Your task to perform on an android device: create a new album in the google photos Image 0: 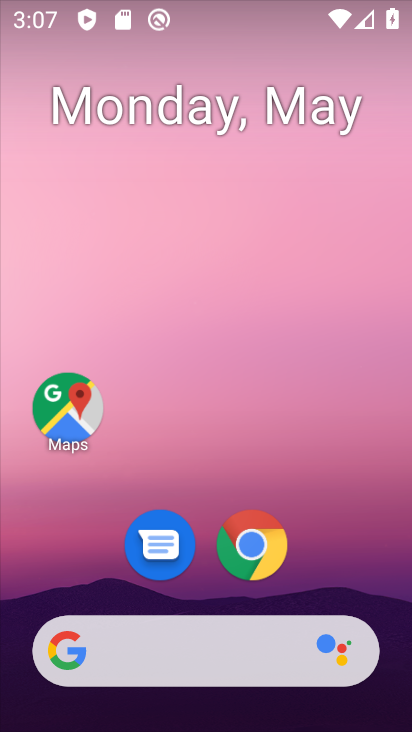
Step 0: drag from (366, 517) to (365, 98)
Your task to perform on an android device: create a new album in the google photos Image 1: 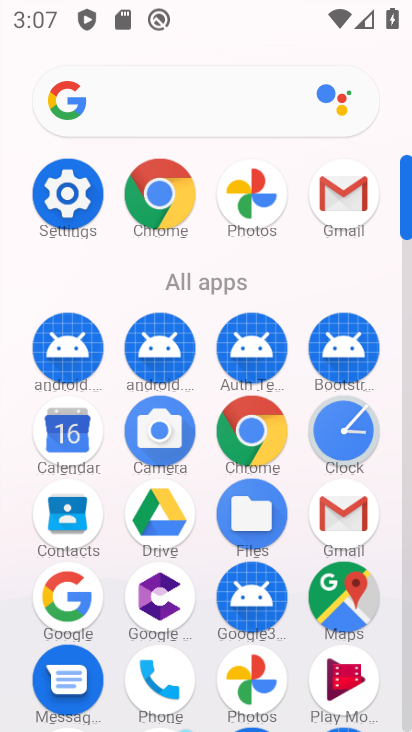
Step 1: click (250, 199)
Your task to perform on an android device: create a new album in the google photos Image 2: 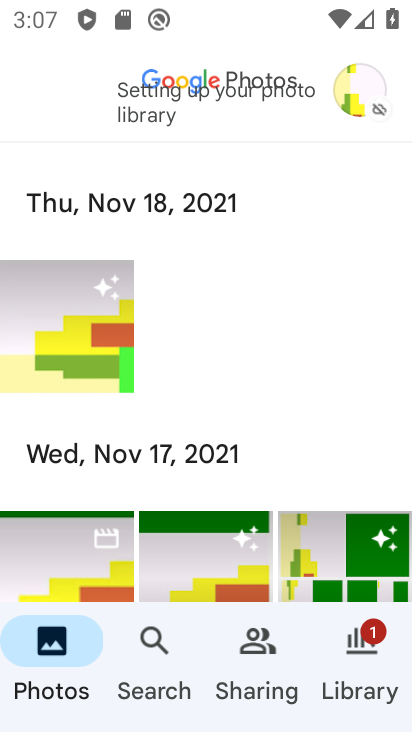
Step 2: click (362, 639)
Your task to perform on an android device: create a new album in the google photos Image 3: 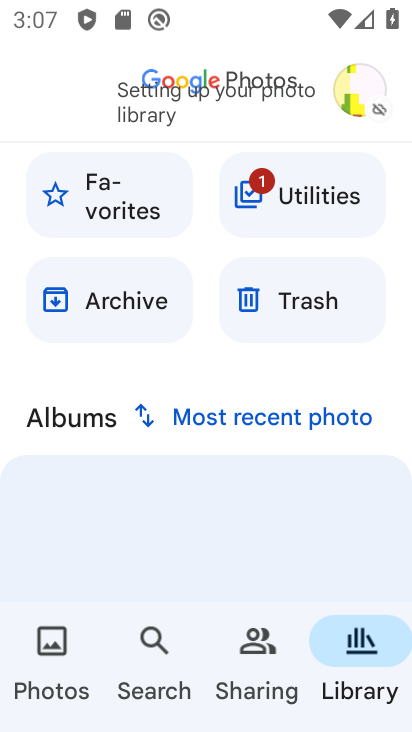
Step 3: drag from (153, 566) to (180, 259)
Your task to perform on an android device: create a new album in the google photos Image 4: 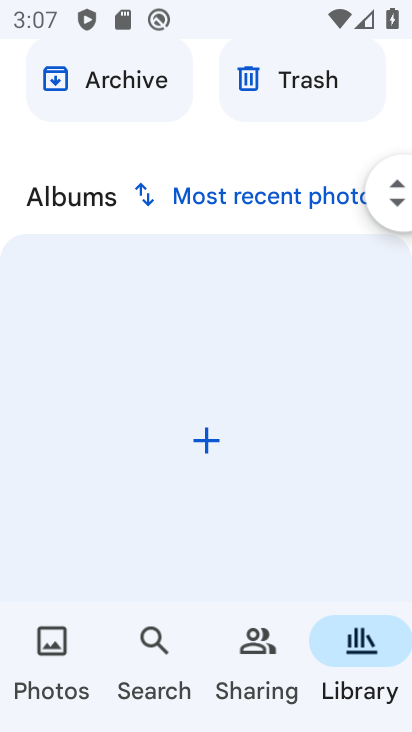
Step 4: click (201, 444)
Your task to perform on an android device: create a new album in the google photos Image 5: 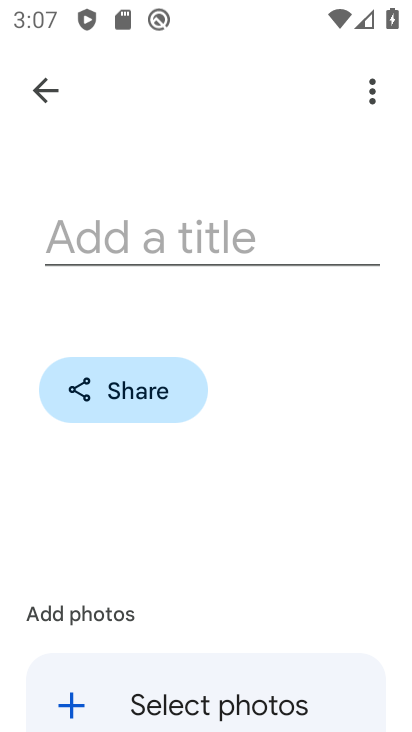
Step 5: click (148, 238)
Your task to perform on an android device: create a new album in the google photos Image 6: 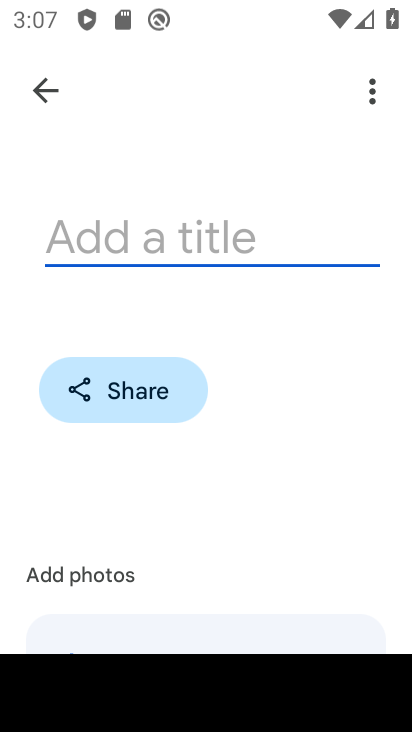
Step 6: type "dtdgdg"
Your task to perform on an android device: create a new album in the google photos Image 7: 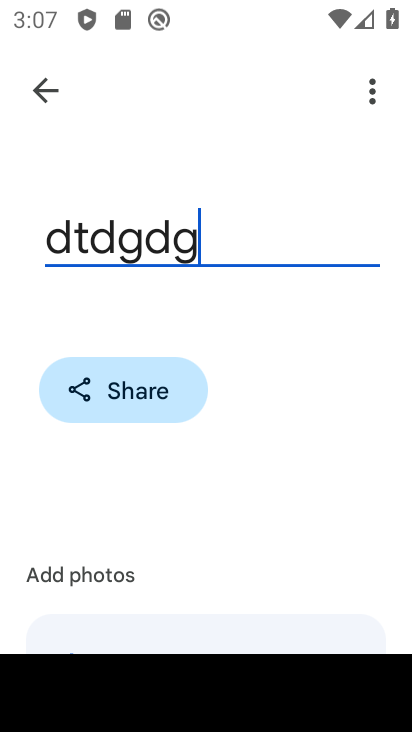
Step 7: click (118, 578)
Your task to perform on an android device: create a new album in the google photos Image 8: 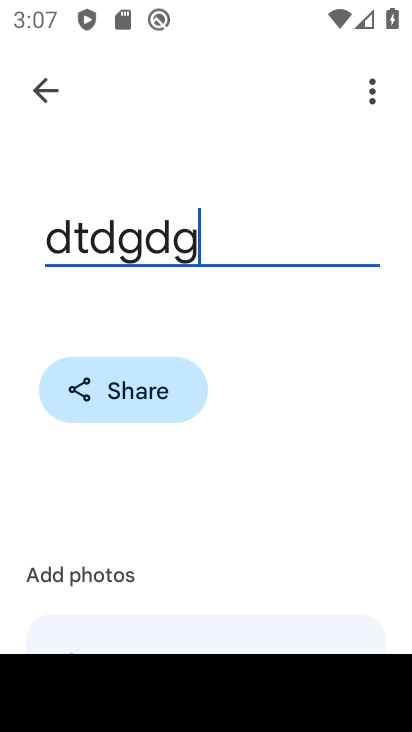
Step 8: drag from (140, 386) to (165, 225)
Your task to perform on an android device: create a new album in the google photos Image 9: 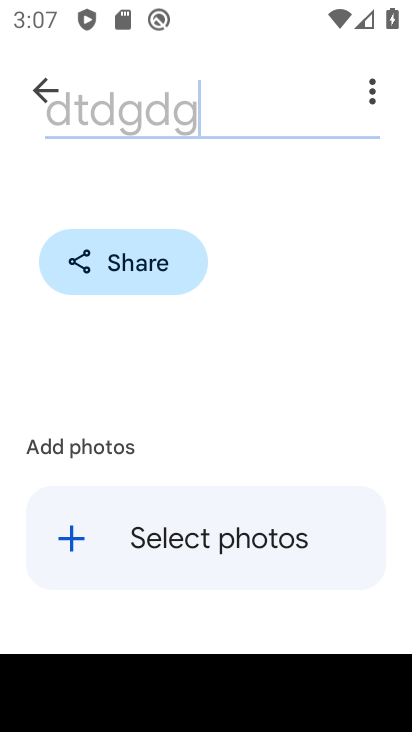
Step 9: click (190, 533)
Your task to perform on an android device: create a new album in the google photos Image 10: 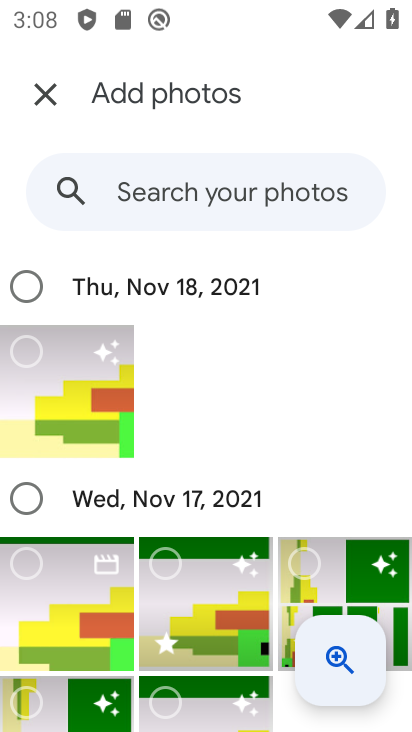
Step 10: click (27, 351)
Your task to perform on an android device: create a new album in the google photos Image 11: 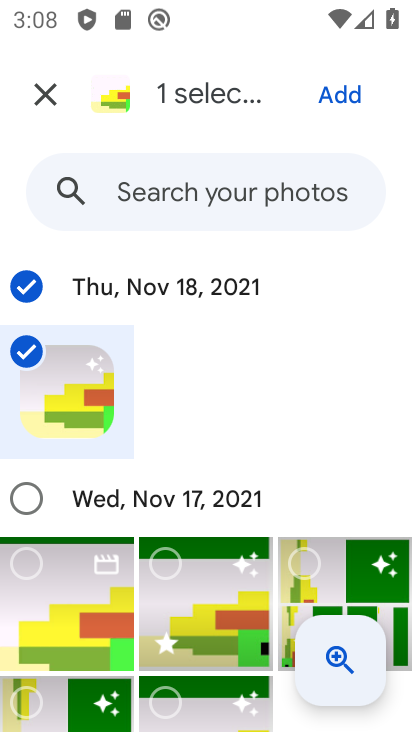
Step 11: click (349, 99)
Your task to perform on an android device: create a new album in the google photos Image 12: 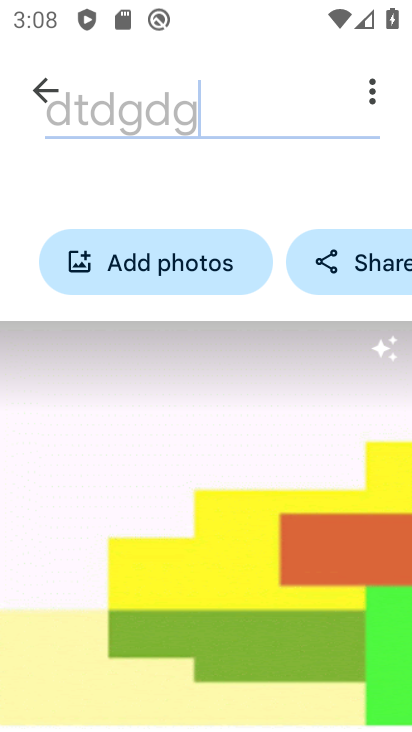
Step 12: click (369, 96)
Your task to perform on an android device: create a new album in the google photos Image 13: 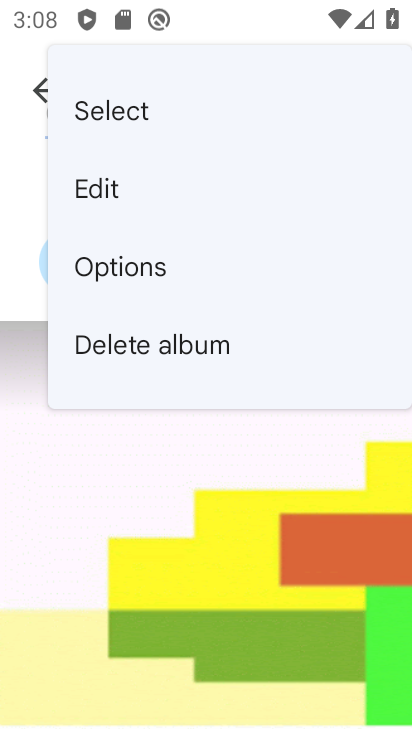
Step 13: click (233, 458)
Your task to perform on an android device: create a new album in the google photos Image 14: 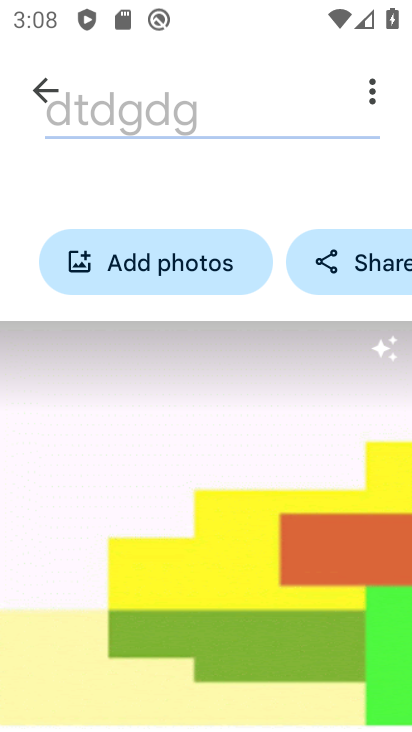
Step 14: task complete